Your task to perform on an android device: add a contact Image 0: 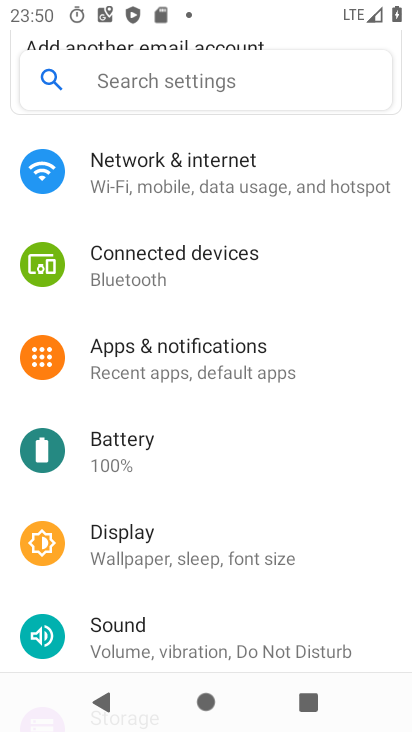
Step 0: press home button
Your task to perform on an android device: add a contact Image 1: 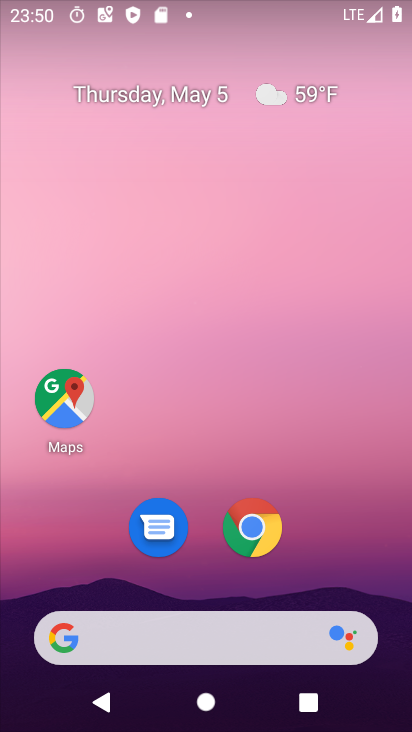
Step 1: drag from (211, 565) to (229, 2)
Your task to perform on an android device: add a contact Image 2: 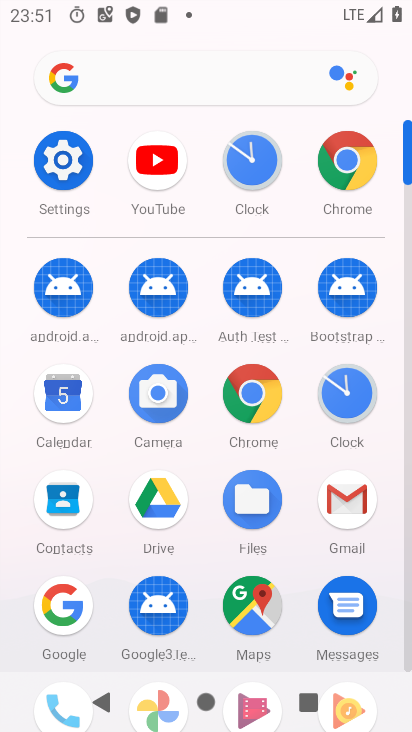
Step 2: click (66, 504)
Your task to perform on an android device: add a contact Image 3: 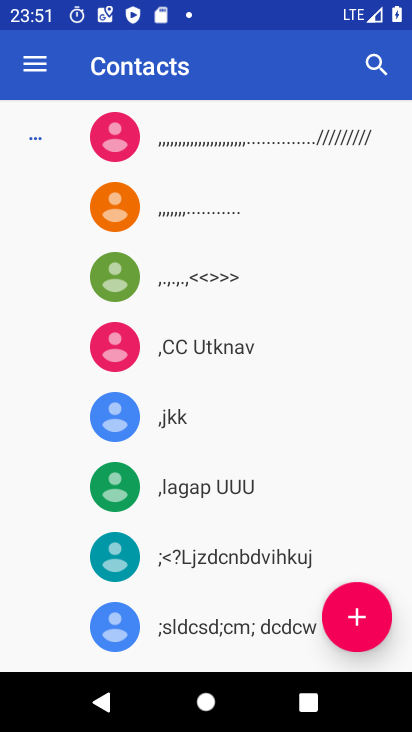
Step 3: click (354, 614)
Your task to perform on an android device: add a contact Image 4: 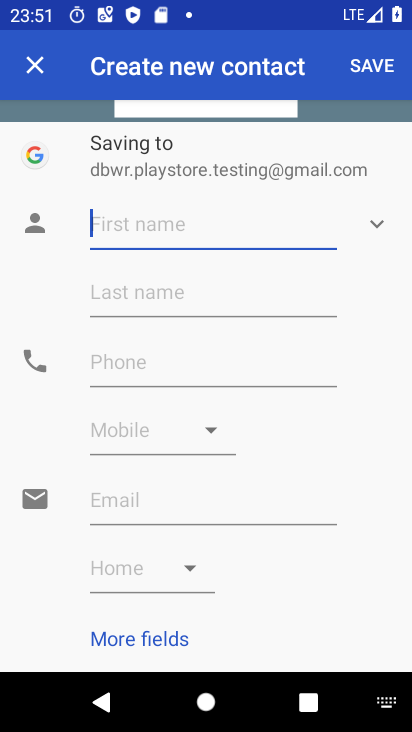
Step 4: type "cliint"
Your task to perform on an android device: add a contact Image 5: 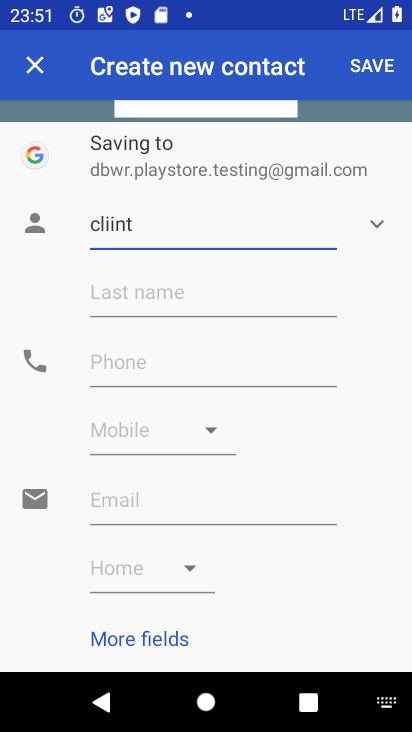
Step 5: click (366, 71)
Your task to perform on an android device: add a contact Image 6: 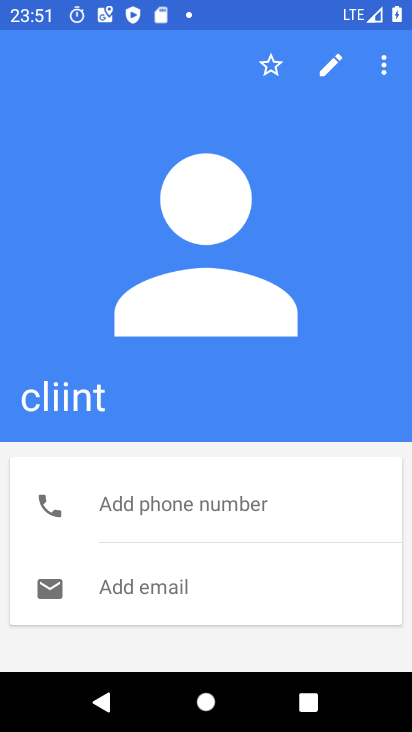
Step 6: task complete